Your task to perform on an android device: change text size in settings app Image 0: 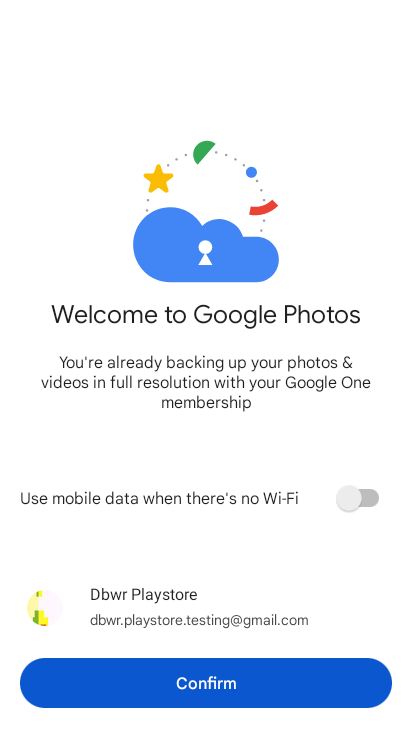
Step 0: drag from (189, 543) to (302, 156)
Your task to perform on an android device: change text size in settings app Image 1: 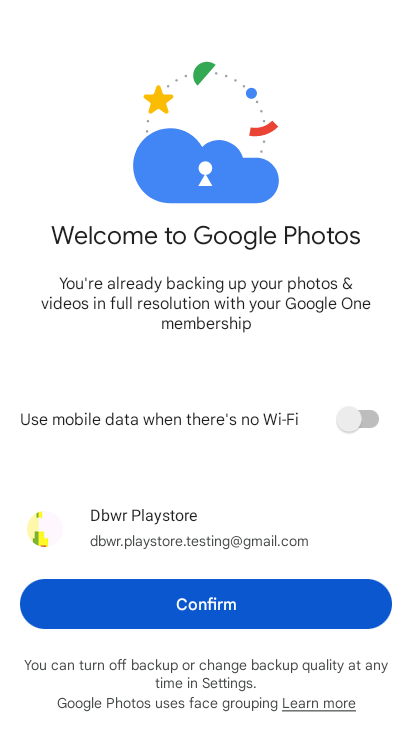
Step 1: press home button
Your task to perform on an android device: change text size in settings app Image 2: 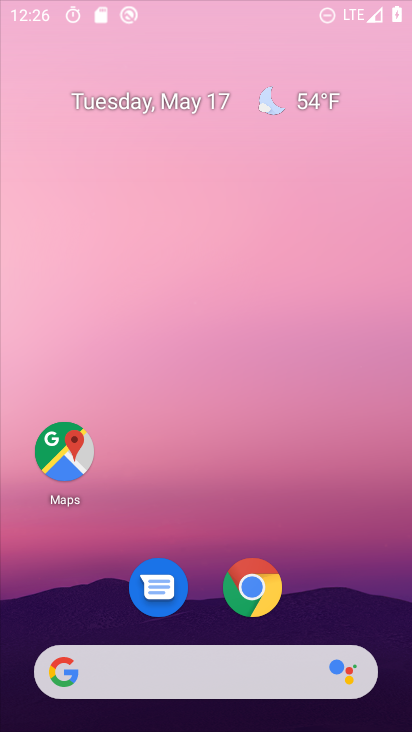
Step 2: drag from (219, 644) to (225, 68)
Your task to perform on an android device: change text size in settings app Image 3: 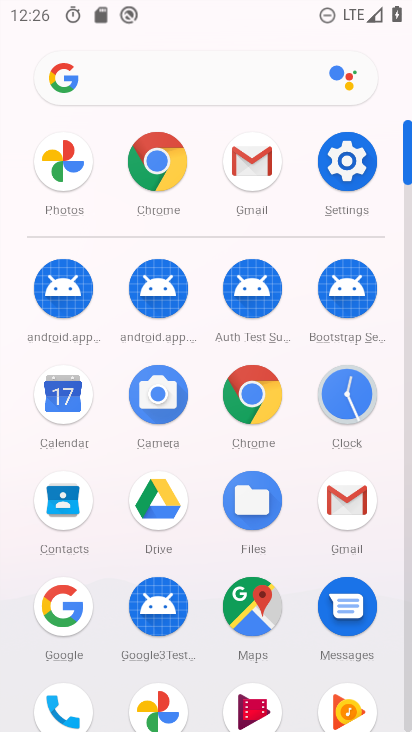
Step 3: click (353, 160)
Your task to perform on an android device: change text size in settings app Image 4: 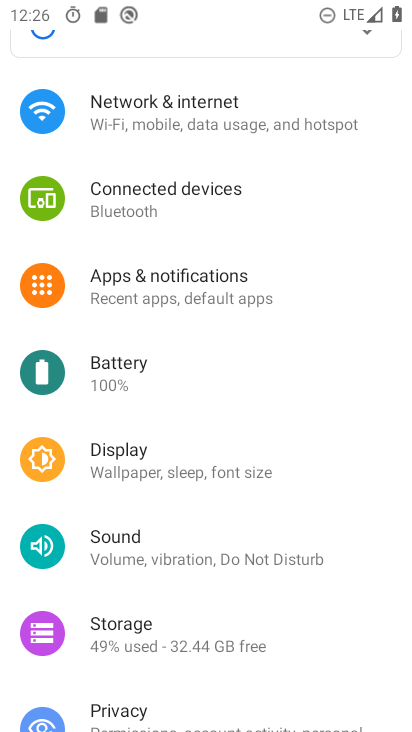
Step 4: drag from (198, 120) to (265, 668)
Your task to perform on an android device: change text size in settings app Image 5: 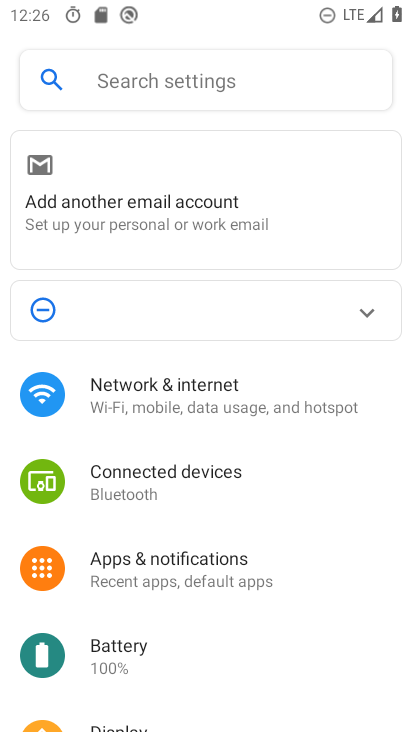
Step 5: drag from (215, 402) to (275, 71)
Your task to perform on an android device: change text size in settings app Image 6: 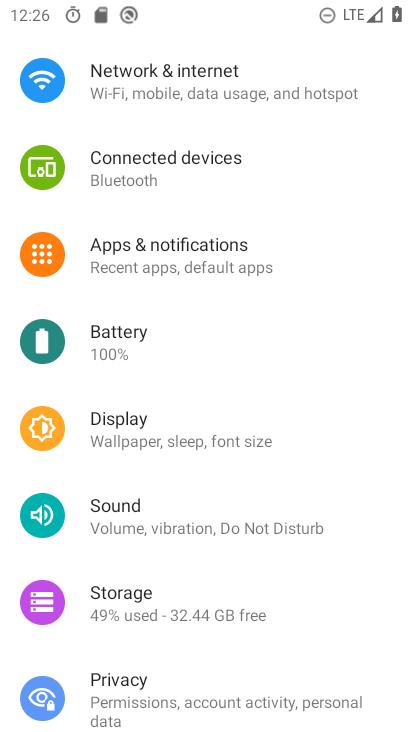
Step 6: drag from (205, 531) to (250, 218)
Your task to perform on an android device: change text size in settings app Image 7: 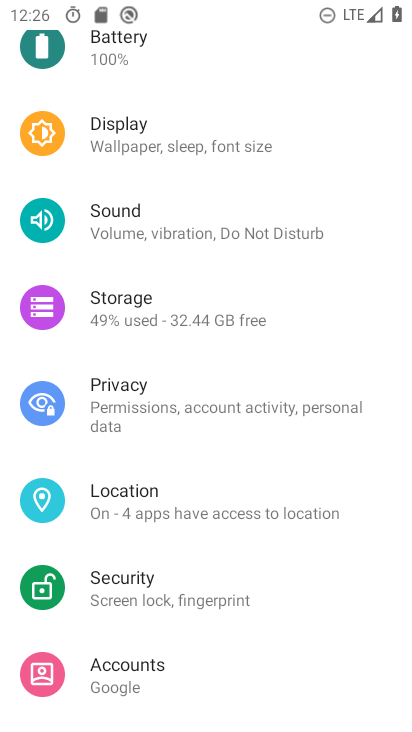
Step 7: drag from (173, 218) to (247, 599)
Your task to perform on an android device: change text size in settings app Image 8: 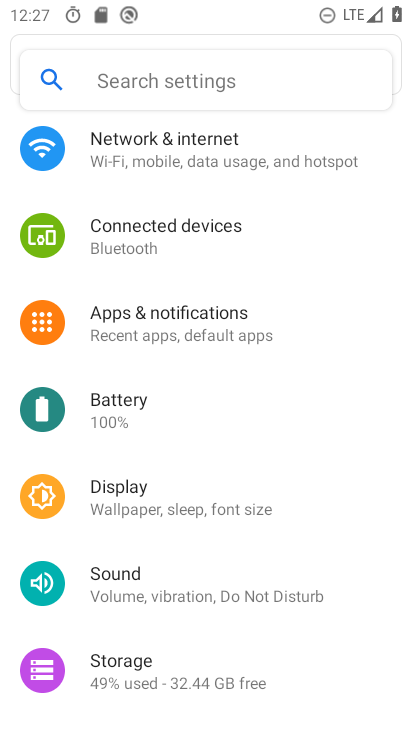
Step 8: click (135, 508)
Your task to perform on an android device: change text size in settings app Image 9: 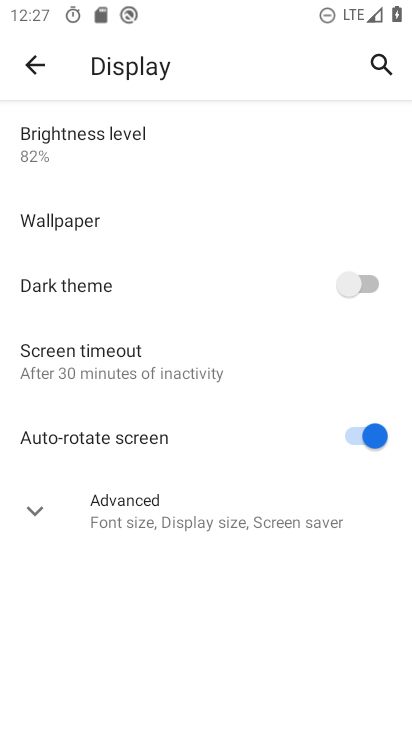
Step 9: click (183, 520)
Your task to perform on an android device: change text size in settings app Image 10: 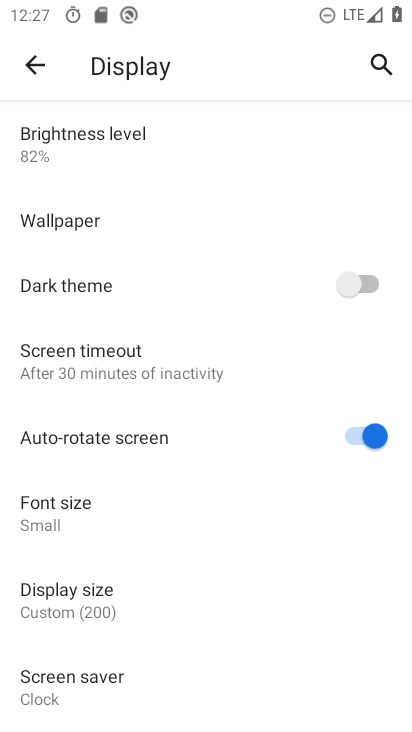
Step 10: click (136, 515)
Your task to perform on an android device: change text size in settings app Image 11: 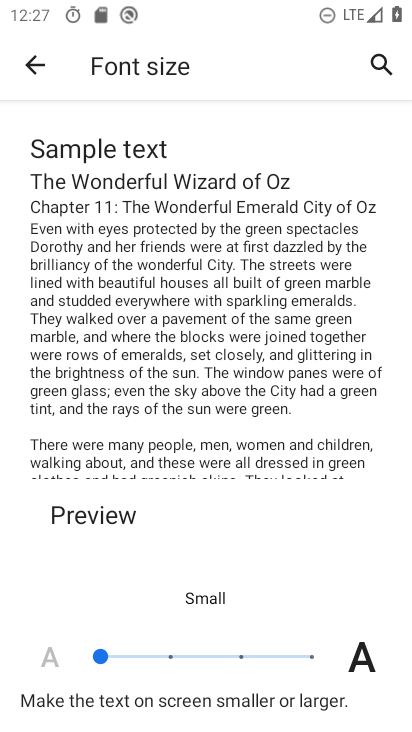
Step 11: drag from (280, 471) to (381, 98)
Your task to perform on an android device: change text size in settings app Image 12: 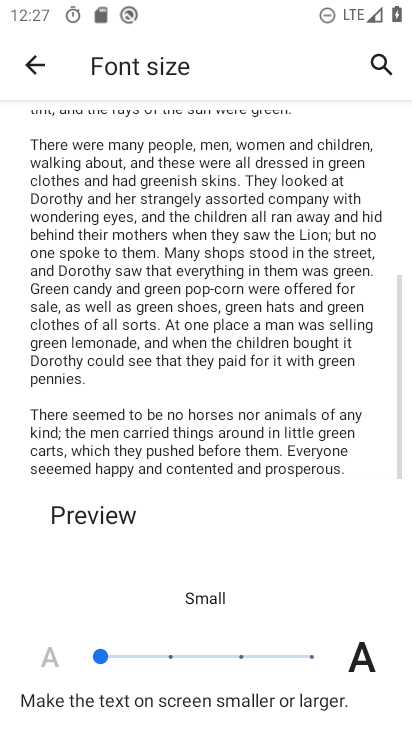
Step 12: drag from (190, 451) to (328, 137)
Your task to perform on an android device: change text size in settings app Image 13: 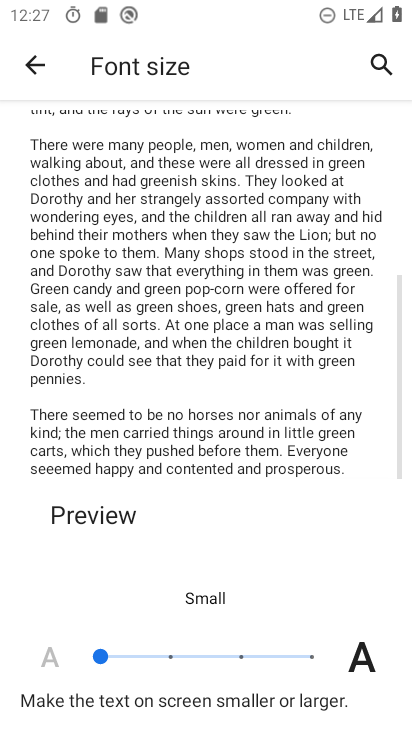
Step 13: drag from (275, 498) to (321, 136)
Your task to perform on an android device: change text size in settings app Image 14: 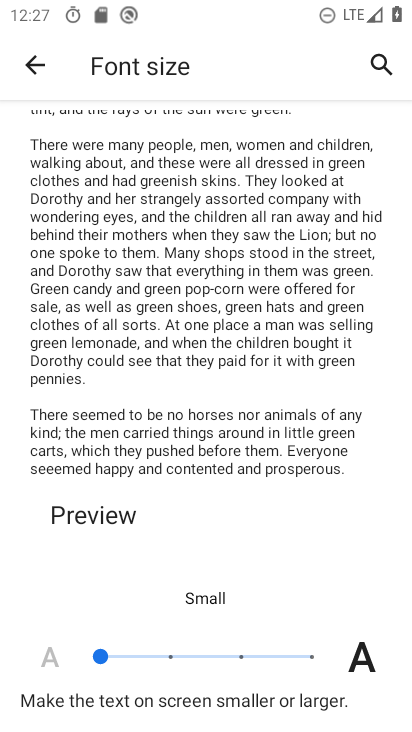
Step 14: click (162, 662)
Your task to perform on an android device: change text size in settings app Image 15: 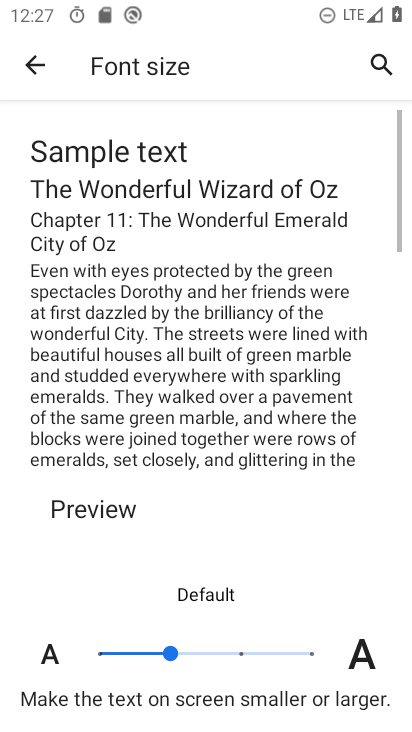
Step 15: task complete